Your task to perform on an android device: Open the Play Movies app and select the watchlist tab. Image 0: 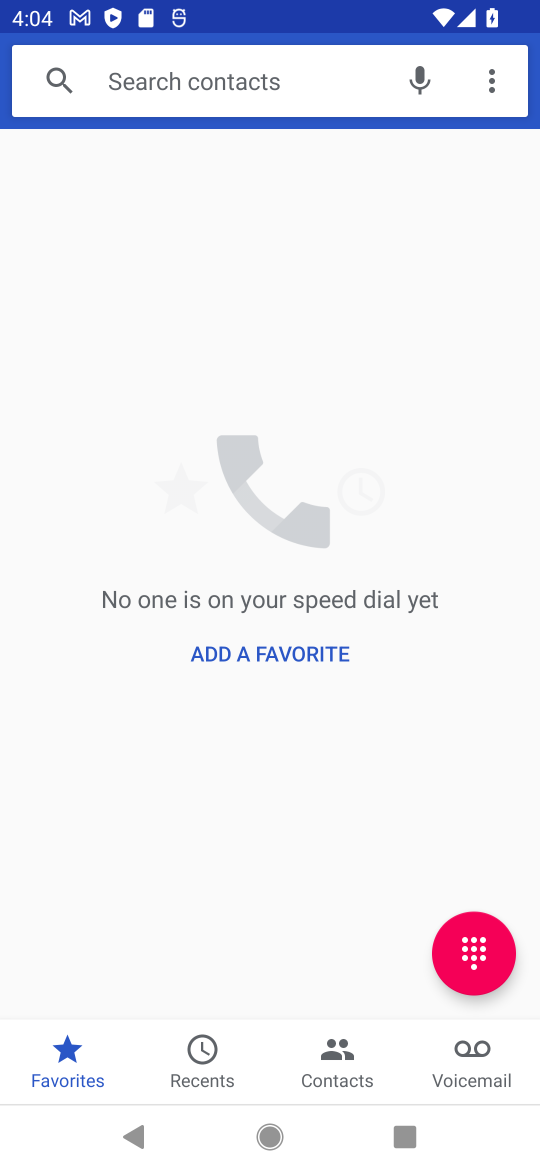
Step 0: press home button
Your task to perform on an android device: Open the Play Movies app and select the watchlist tab. Image 1: 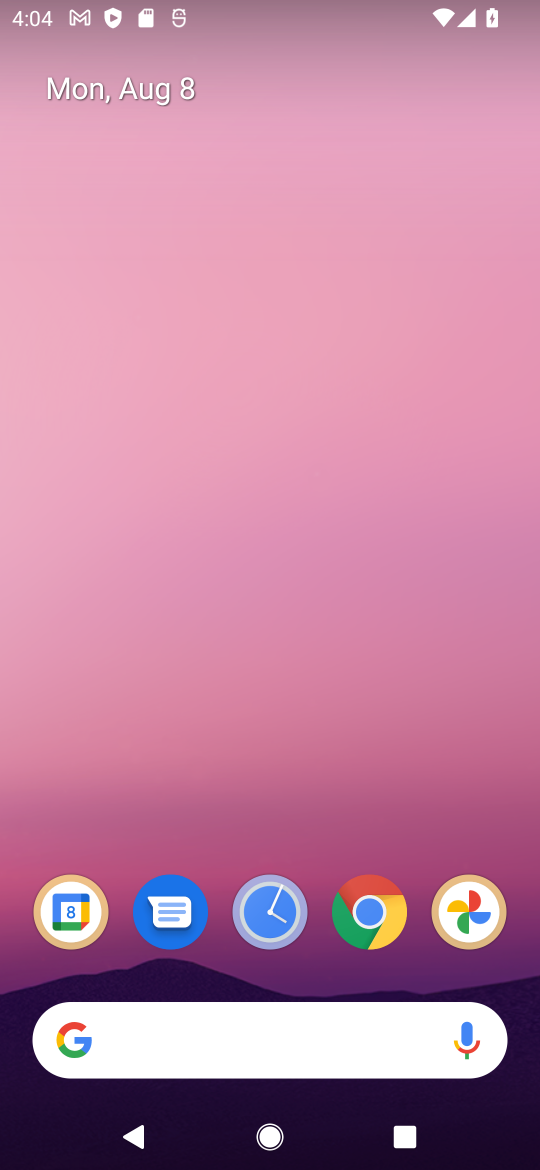
Step 1: drag from (25, 962) to (414, 297)
Your task to perform on an android device: Open the Play Movies app and select the watchlist tab. Image 2: 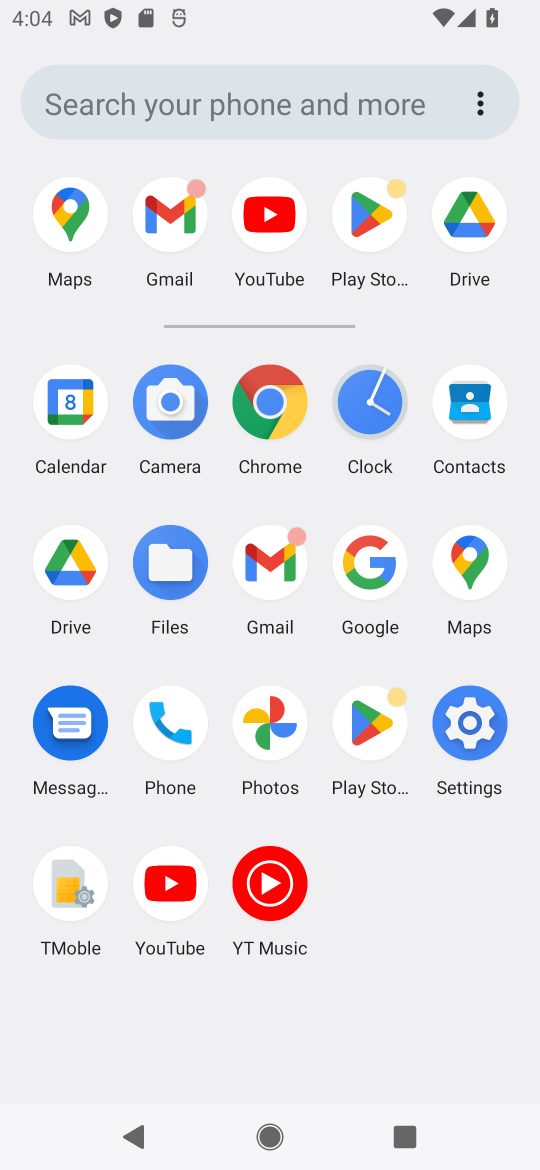
Step 2: click (257, 107)
Your task to perform on an android device: Open the Play Movies app and select the watchlist tab. Image 3: 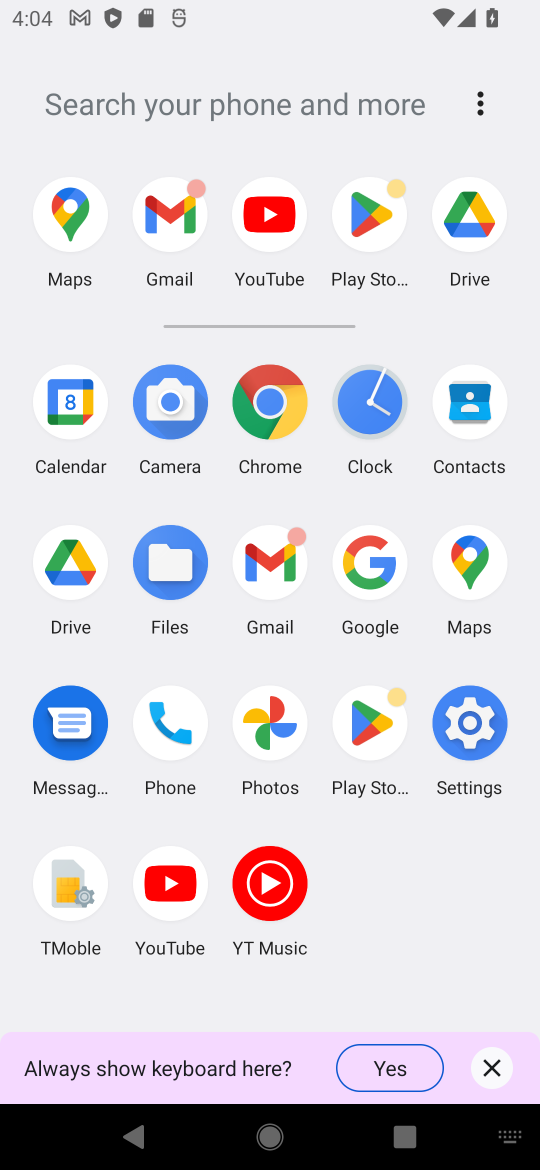
Step 3: type ""
Your task to perform on an android device: Open the Play Movies app and select the watchlist tab. Image 4: 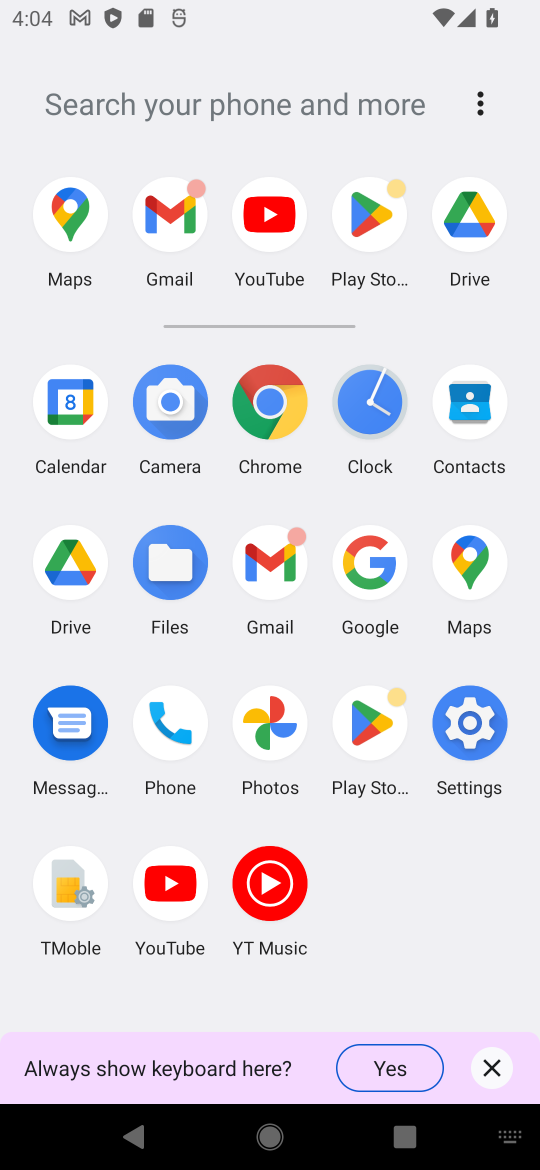
Step 4: type "play movie"
Your task to perform on an android device: Open the Play Movies app and select the watchlist tab. Image 5: 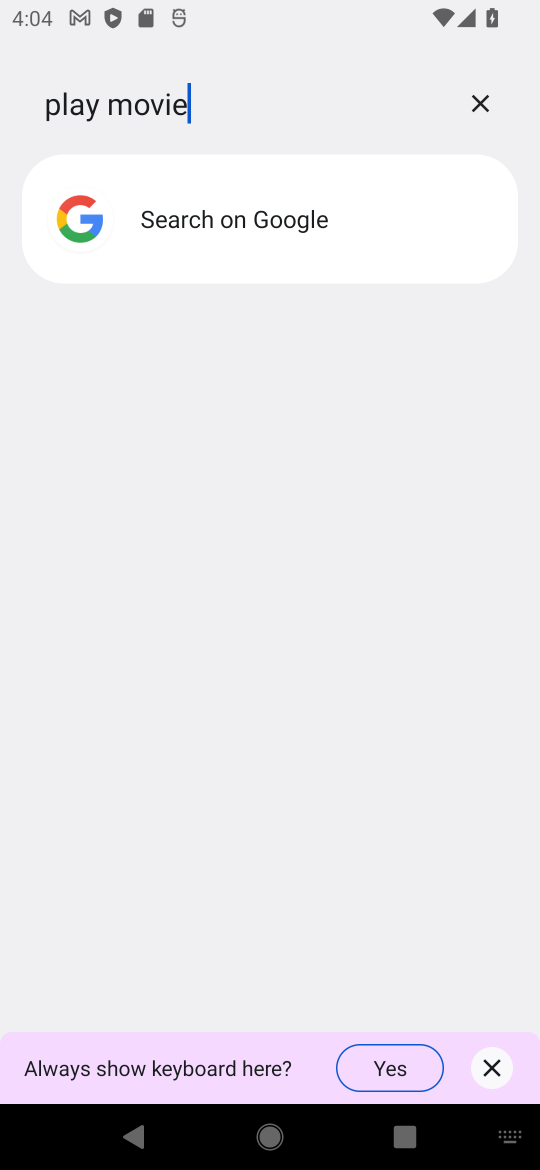
Step 5: type ""
Your task to perform on an android device: Open the Play Movies app and select the watchlist tab. Image 6: 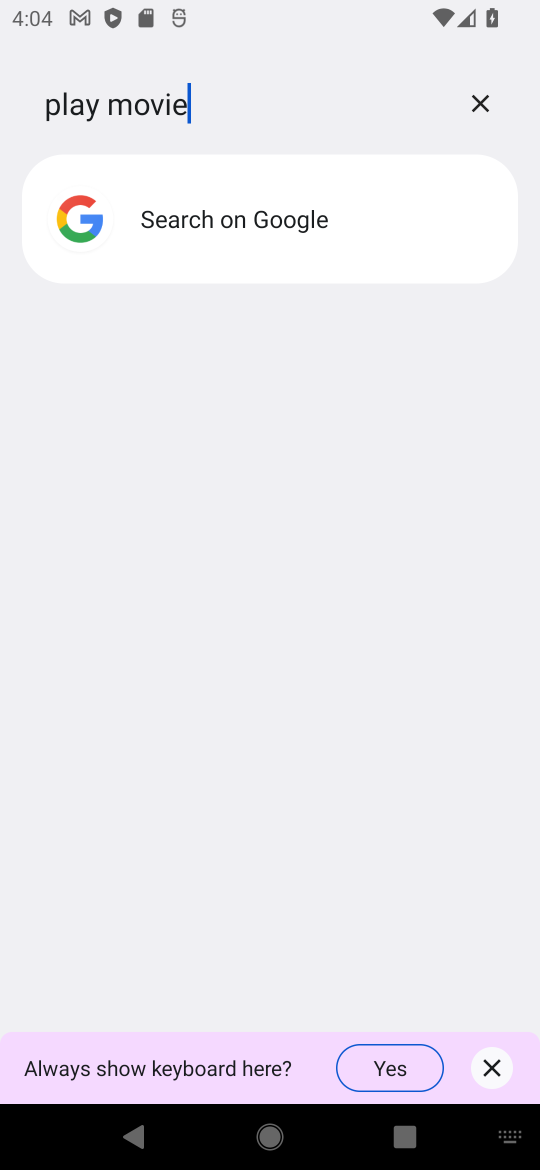
Step 6: task complete